Your task to perform on an android device: open a new tab in the chrome app Image 0: 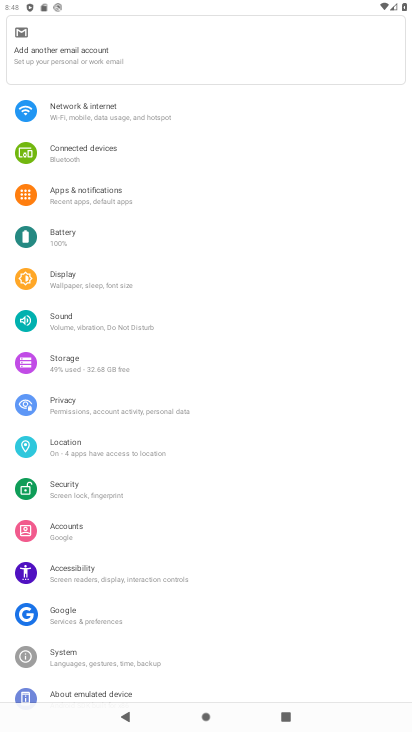
Step 0: press home button
Your task to perform on an android device: open a new tab in the chrome app Image 1: 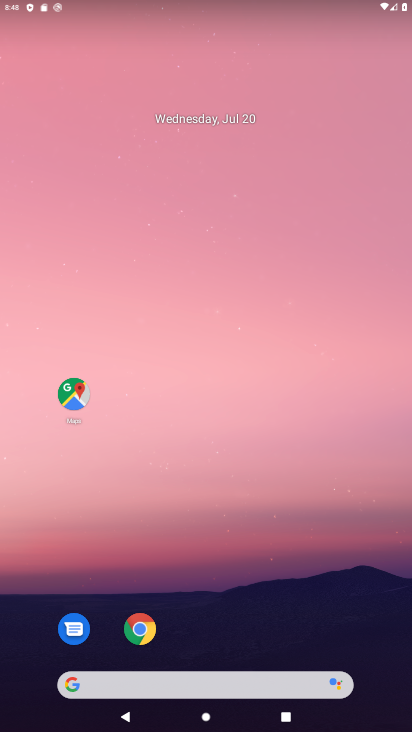
Step 1: click (139, 632)
Your task to perform on an android device: open a new tab in the chrome app Image 2: 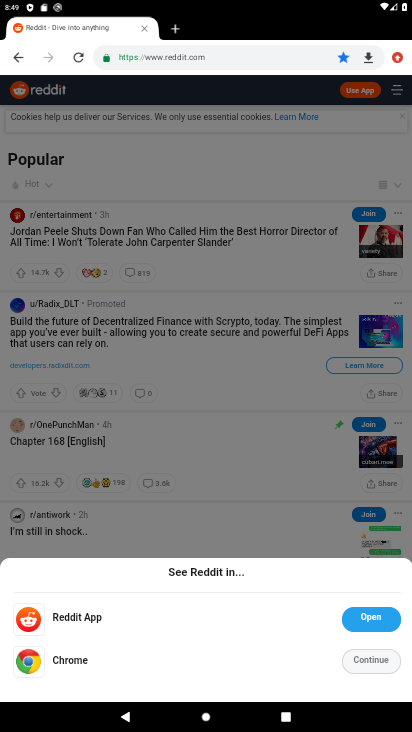
Step 2: click (396, 55)
Your task to perform on an android device: open a new tab in the chrome app Image 3: 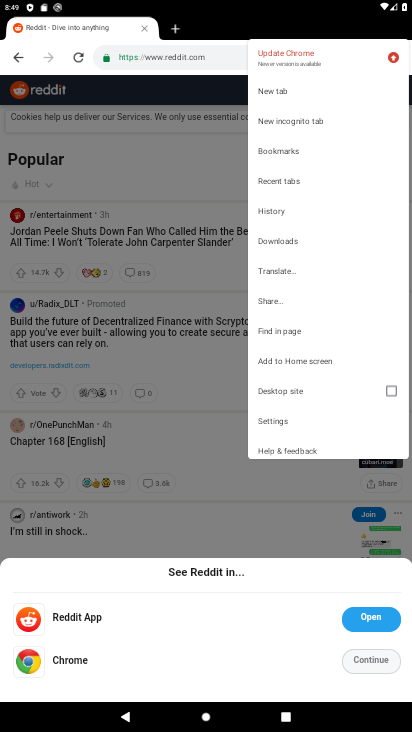
Step 3: click (273, 90)
Your task to perform on an android device: open a new tab in the chrome app Image 4: 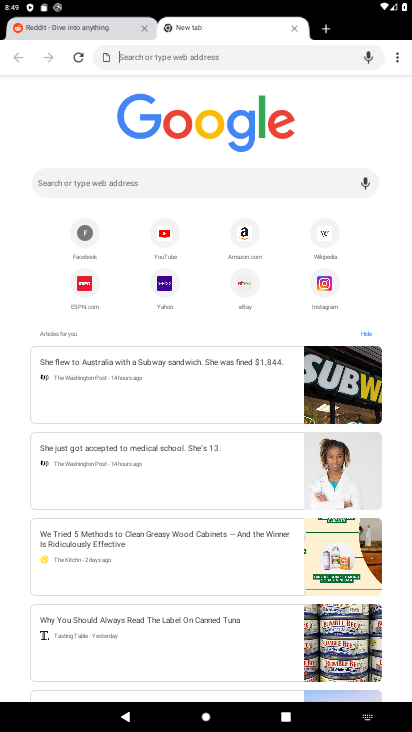
Step 4: task complete